Your task to perform on an android device: Open wifi settings Image 0: 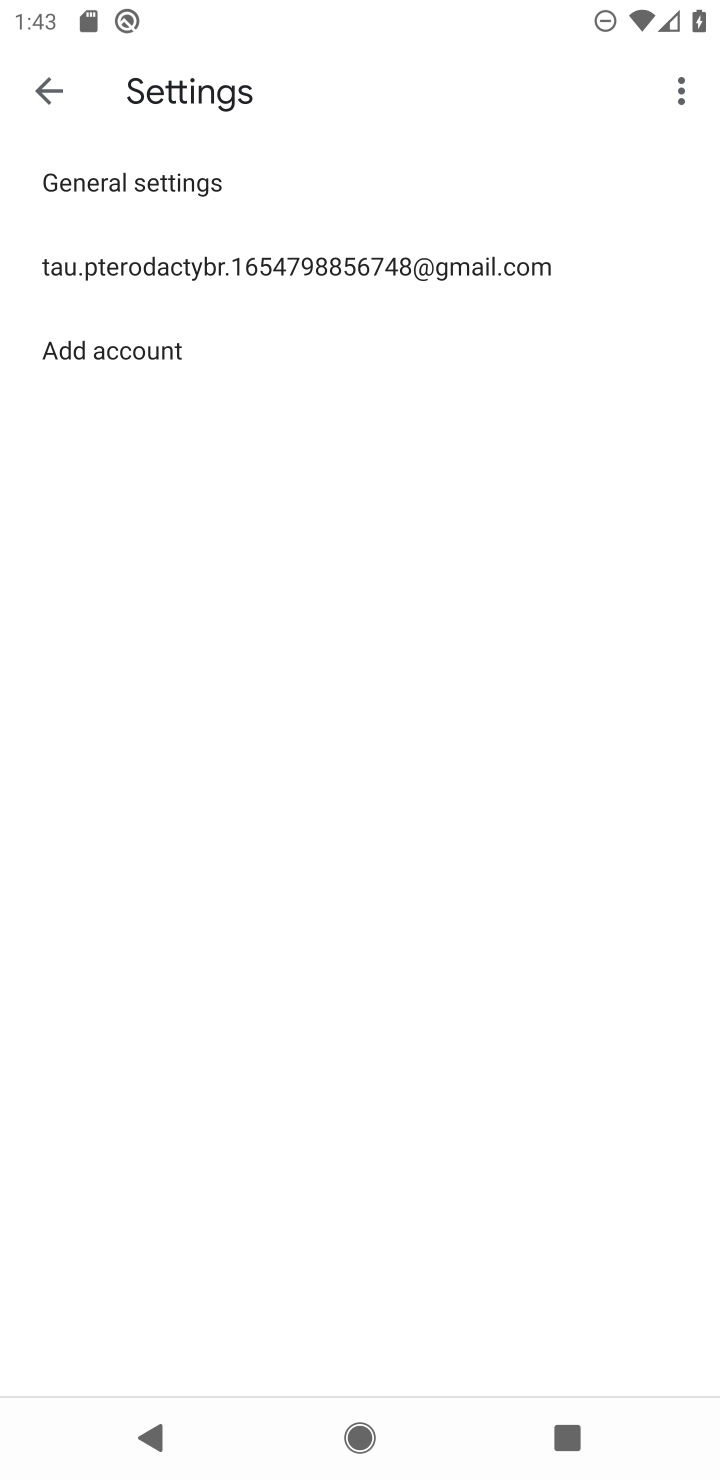
Step 0: press home button
Your task to perform on an android device: Open wifi settings Image 1: 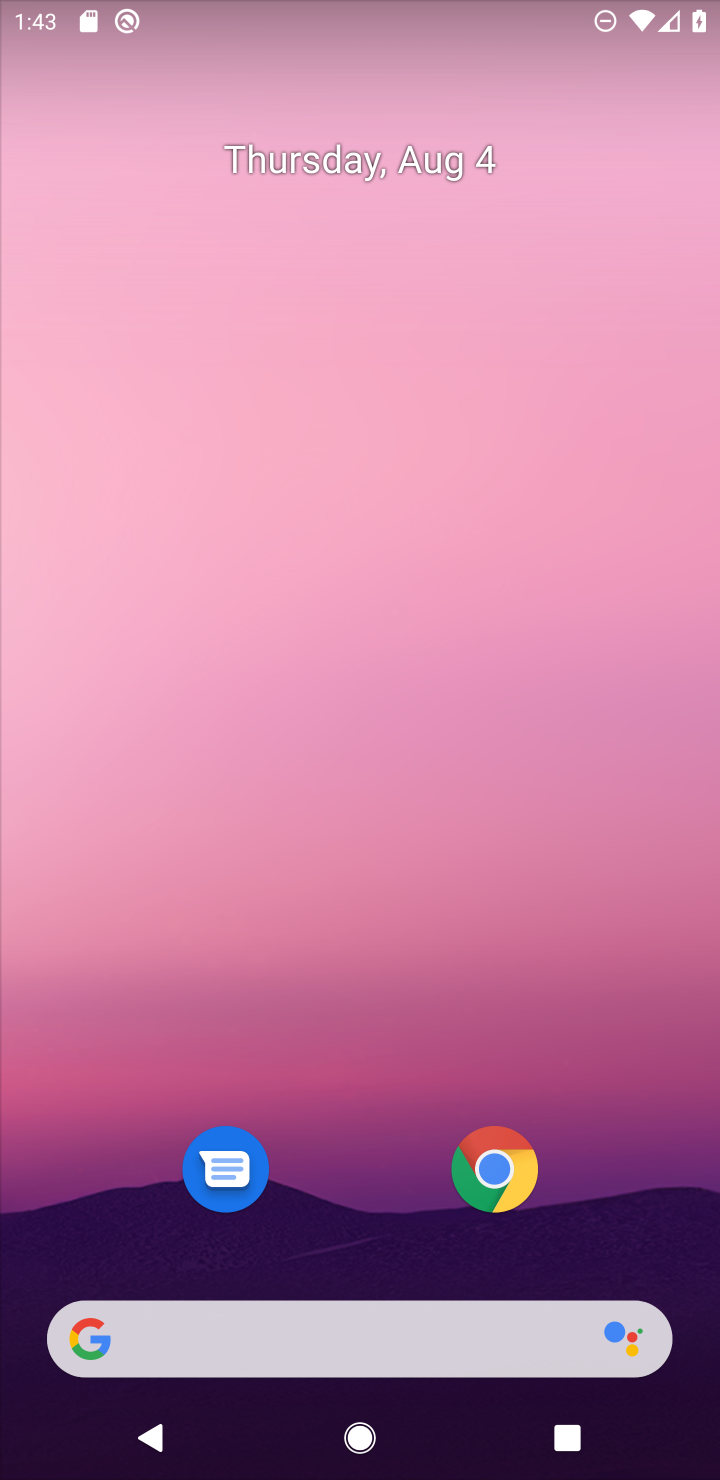
Step 1: drag from (324, 1191) to (419, 72)
Your task to perform on an android device: Open wifi settings Image 2: 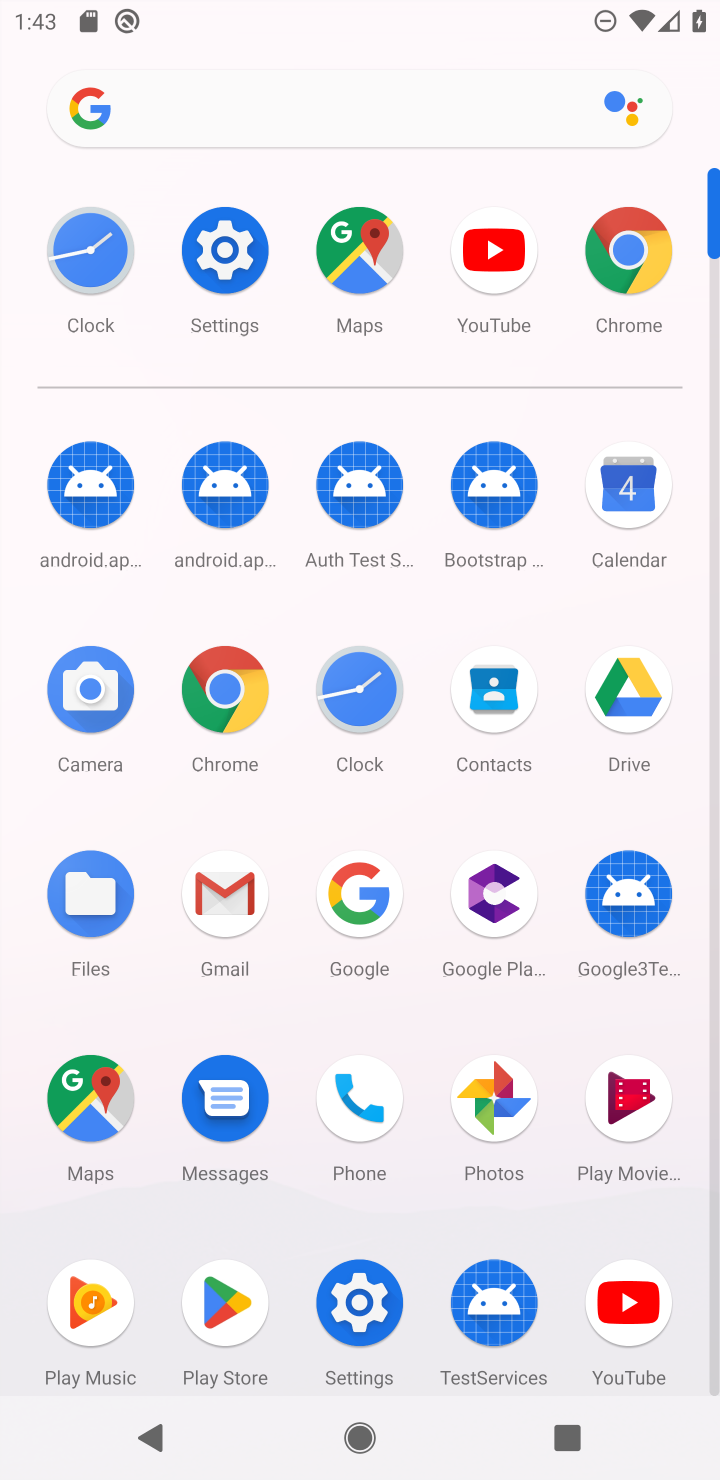
Step 2: click (220, 258)
Your task to perform on an android device: Open wifi settings Image 3: 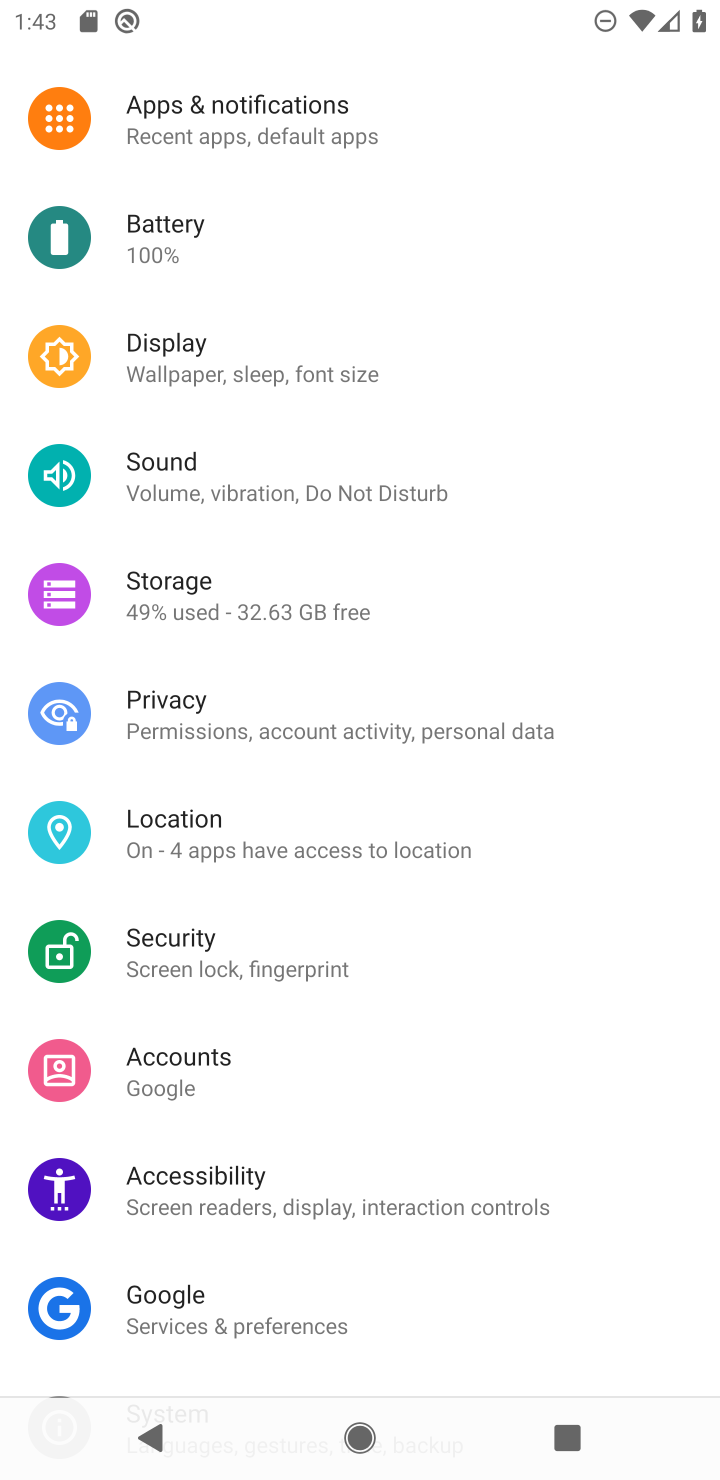
Step 3: drag from (494, 222) to (502, 989)
Your task to perform on an android device: Open wifi settings Image 4: 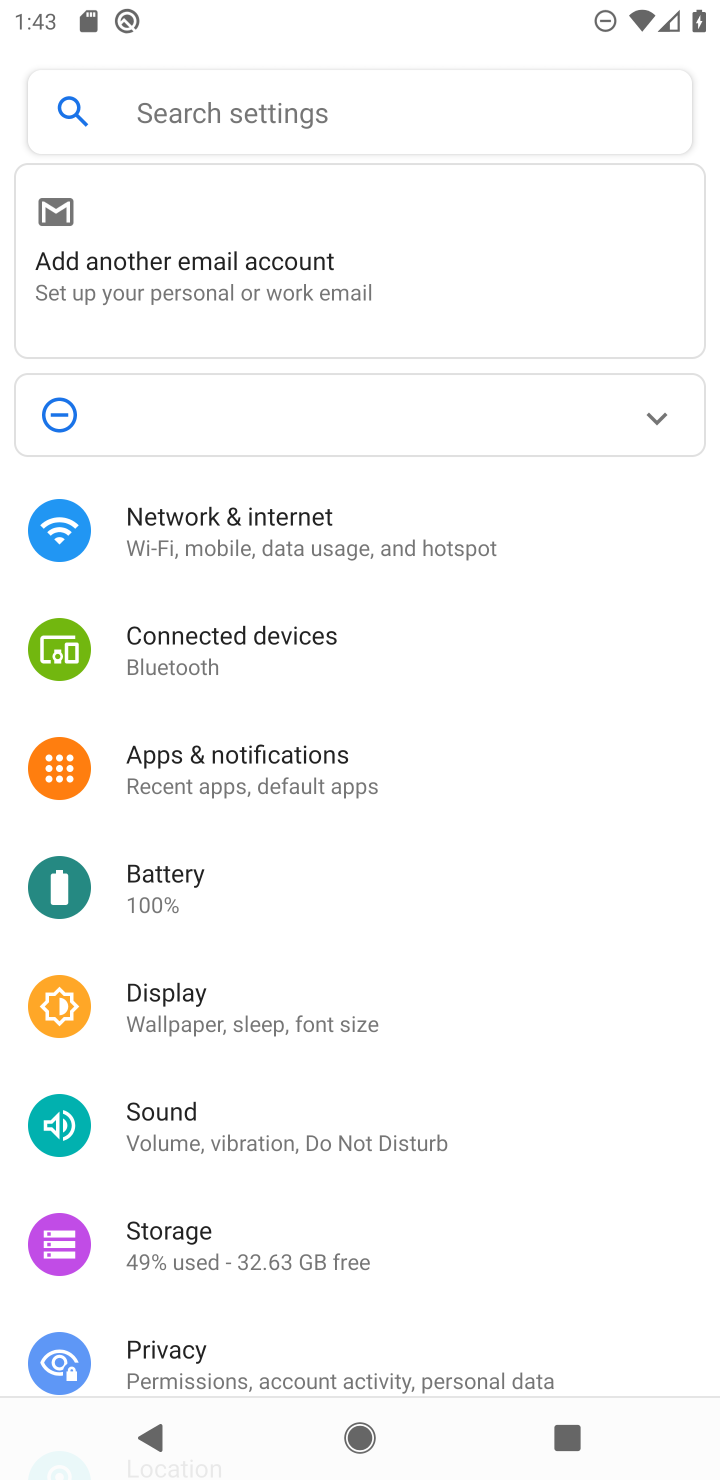
Step 4: click (223, 546)
Your task to perform on an android device: Open wifi settings Image 5: 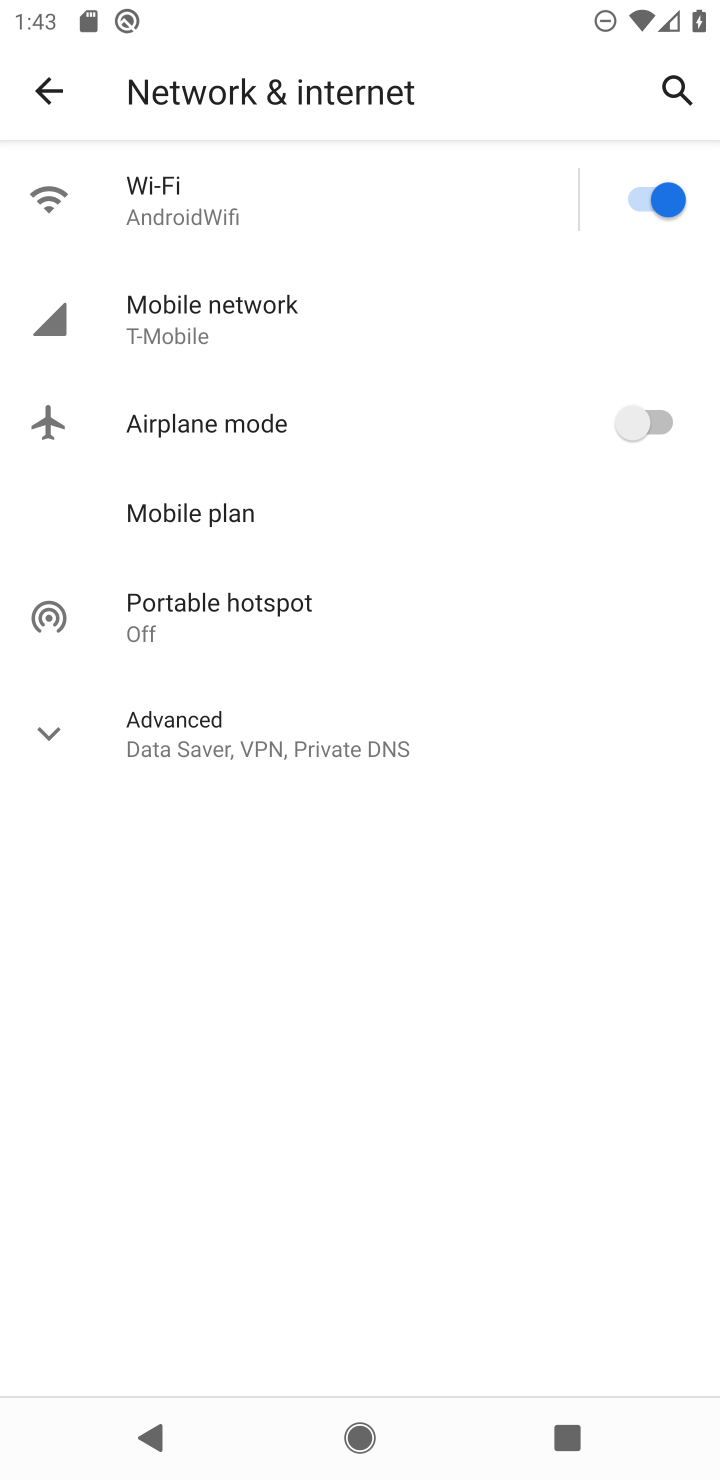
Step 5: click (74, 201)
Your task to perform on an android device: Open wifi settings Image 6: 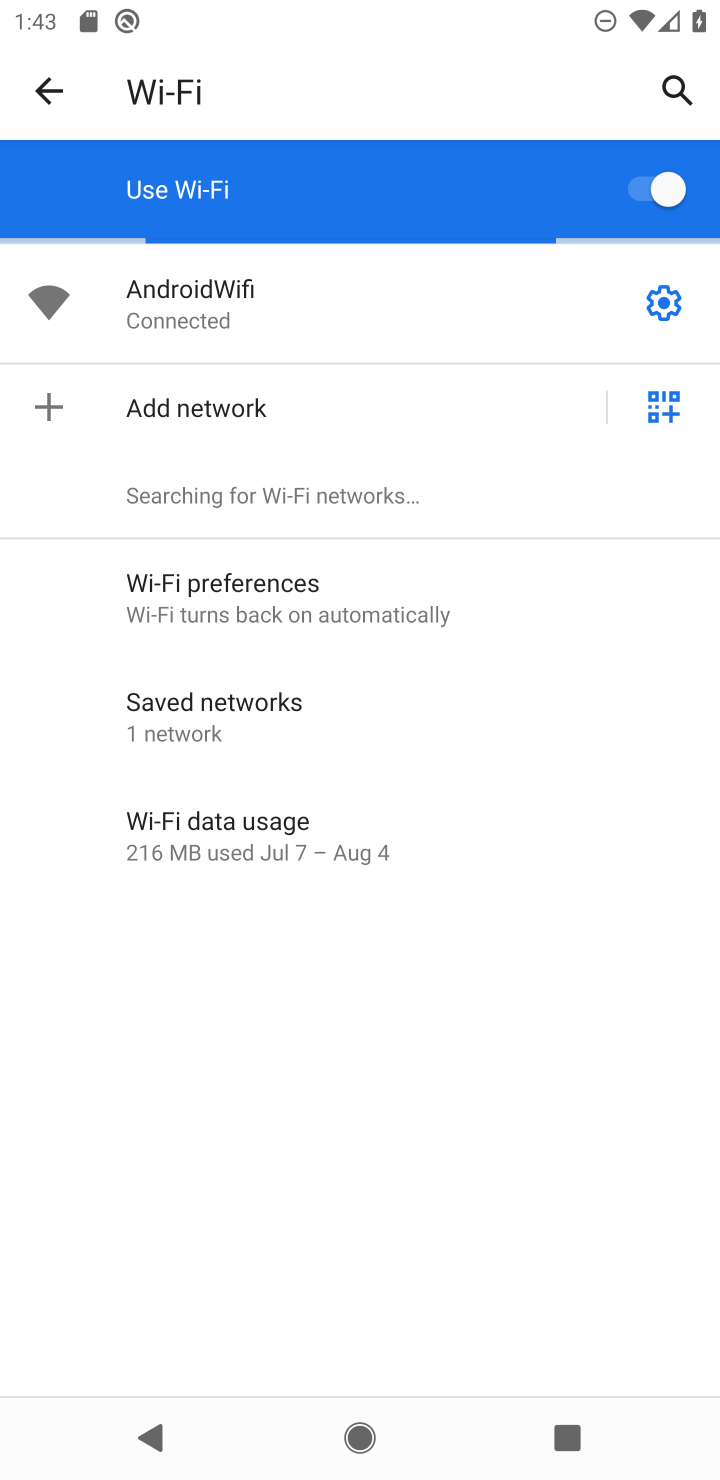
Step 6: task complete